Your task to perform on an android device: turn on data saver in the chrome app Image 0: 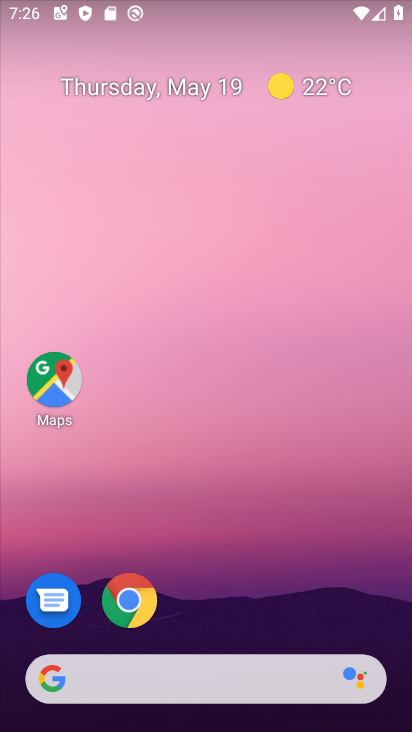
Step 0: drag from (266, 607) to (272, 261)
Your task to perform on an android device: turn on data saver in the chrome app Image 1: 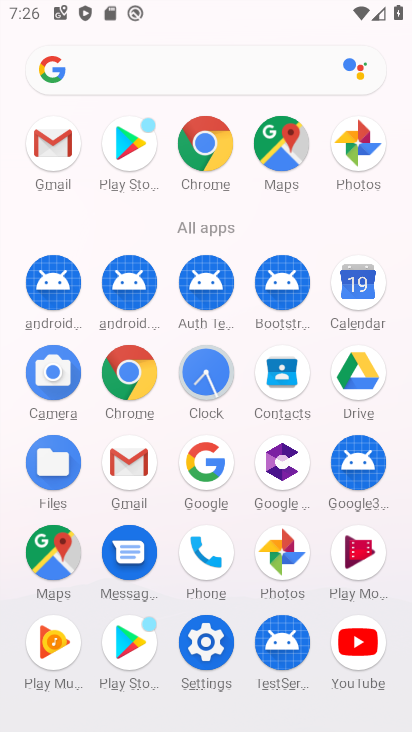
Step 1: click (129, 382)
Your task to perform on an android device: turn on data saver in the chrome app Image 2: 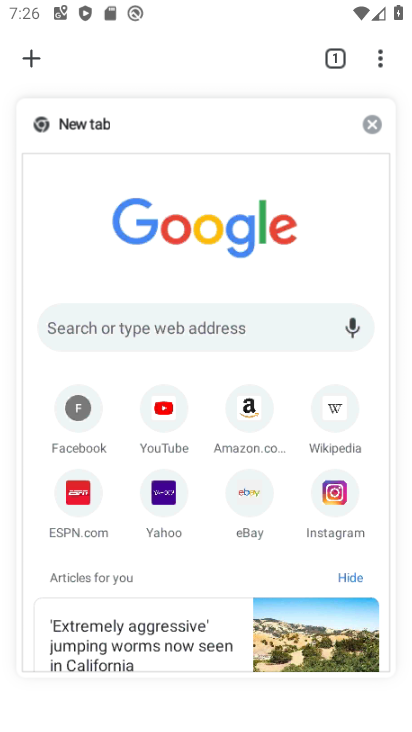
Step 2: drag from (387, 64) to (174, 218)
Your task to perform on an android device: turn on data saver in the chrome app Image 3: 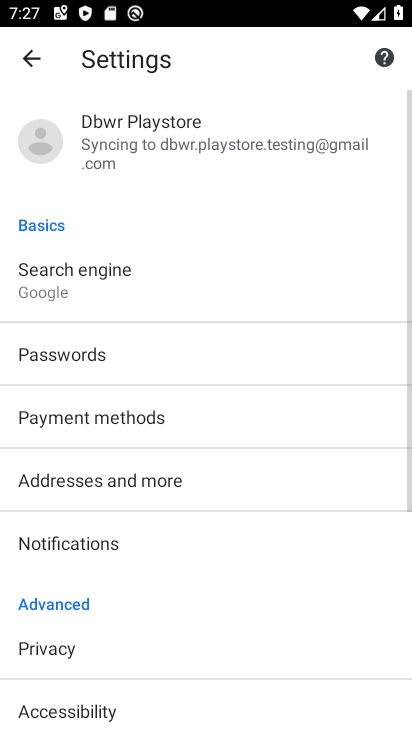
Step 3: drag from (210, 661) to (243, 345)
Your task to perform on an android device: turn on data saver in the chrome app Image 4: 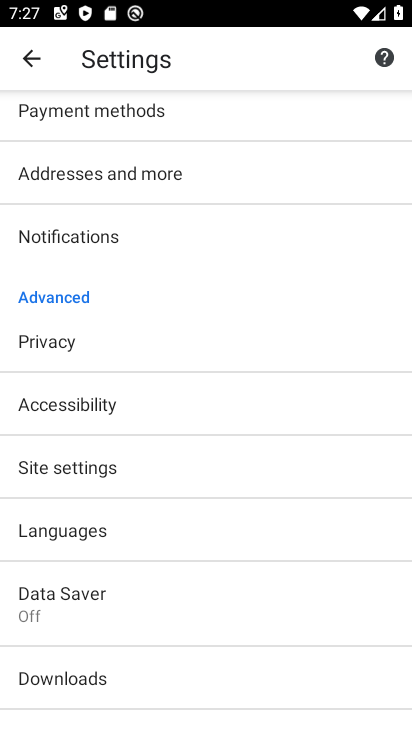
Step 4: click (102, 607)
Your task to perform on an android device: turn on data saver in the chrome app Image 5: 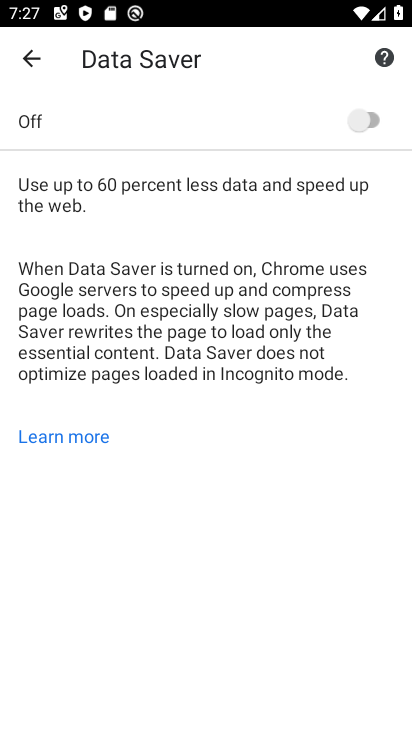
Step 5: click (375, 114)
Your task to perform on an android device: turn on data saver in the chrome app Image 6: 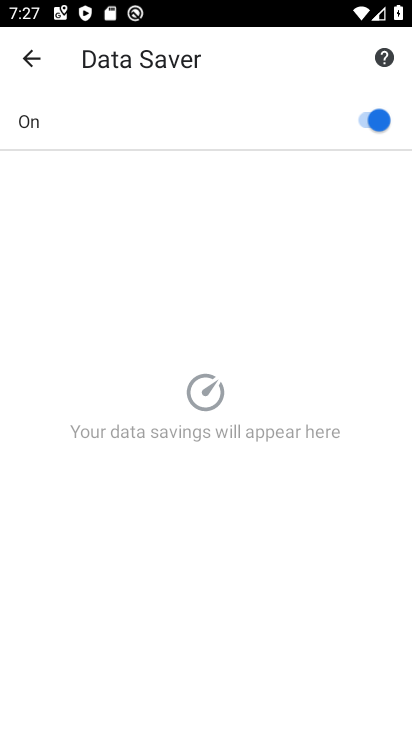
Step 6: task complete